Your task to perform on an android device: Search for the best books of all time on Goodreads Image 0: 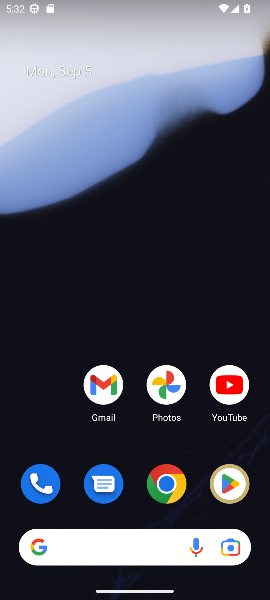
Step 0: click (174, 479)
Your task to perform on an android device: Search for the best books of all time on Goodreads Image 1: 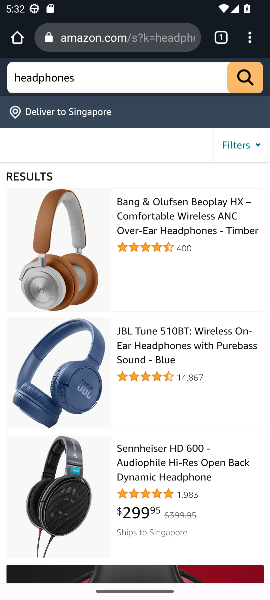
Step 1: click (158, 39)
Your task to perform on an android device: Search for the best books of all time on Goodreads Image 2: 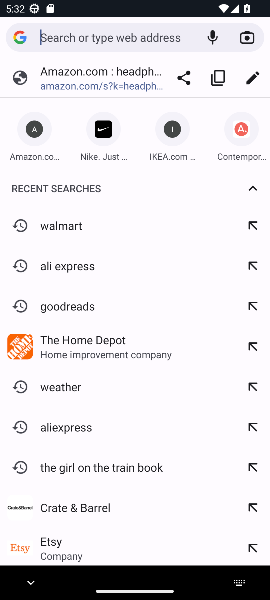
Step 2: type " Goodreads"
Your task to perform on an android device: Search for the best books of all time on Goodreads Image 3: 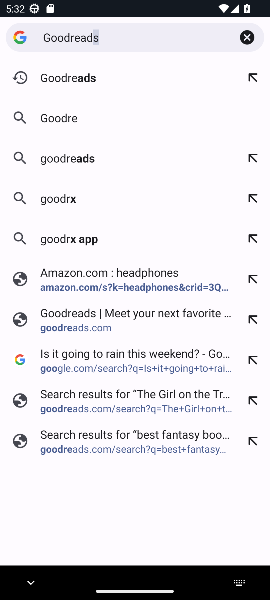
Step 3: press enter
Your task to perform on an android device: Search for the best books of all time on Goodreads Image 4: 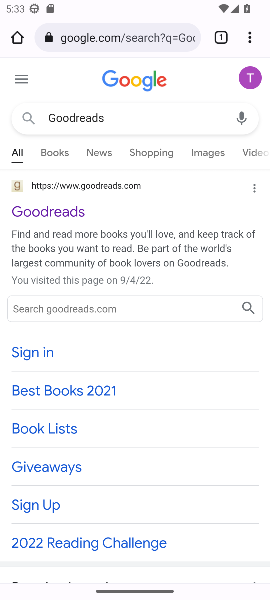
Step 4: click (57, 211)
Your task to perform on an android device: Search for the best books of all time on Goodreads Image 5: 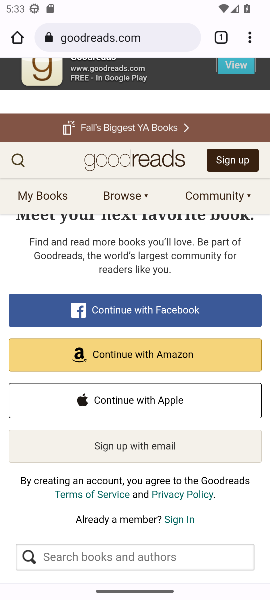
Step 5: click (16, 154)
Your task to perform on an android device: Search for the best books of all time on Goodreads Image 6: 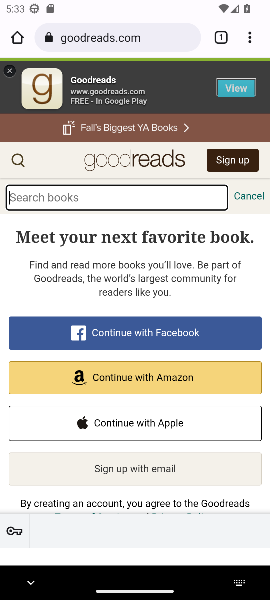
Step 6: type " best books of all time"
Your task to perform on an android device: Search for the best books of all time on Goodreads Image 7: 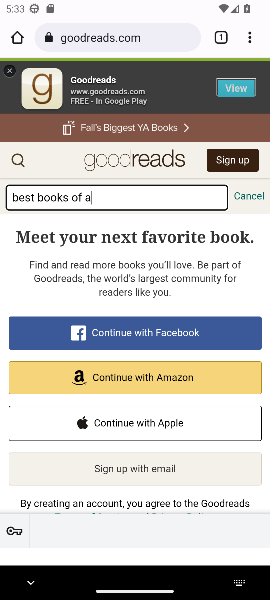
Step 7: press enter
Your task to perform on an android device: Search for the best books of all time on Goodreads Image 8: 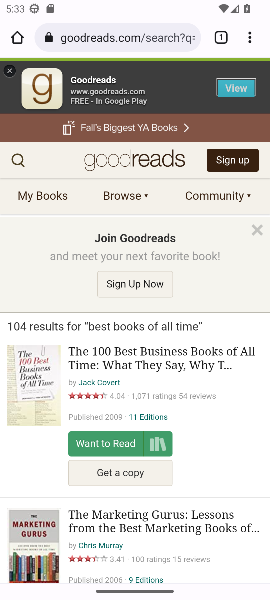
Step 8: task complete